Your task to perform on an android device: Search for a new perfume Image 0: 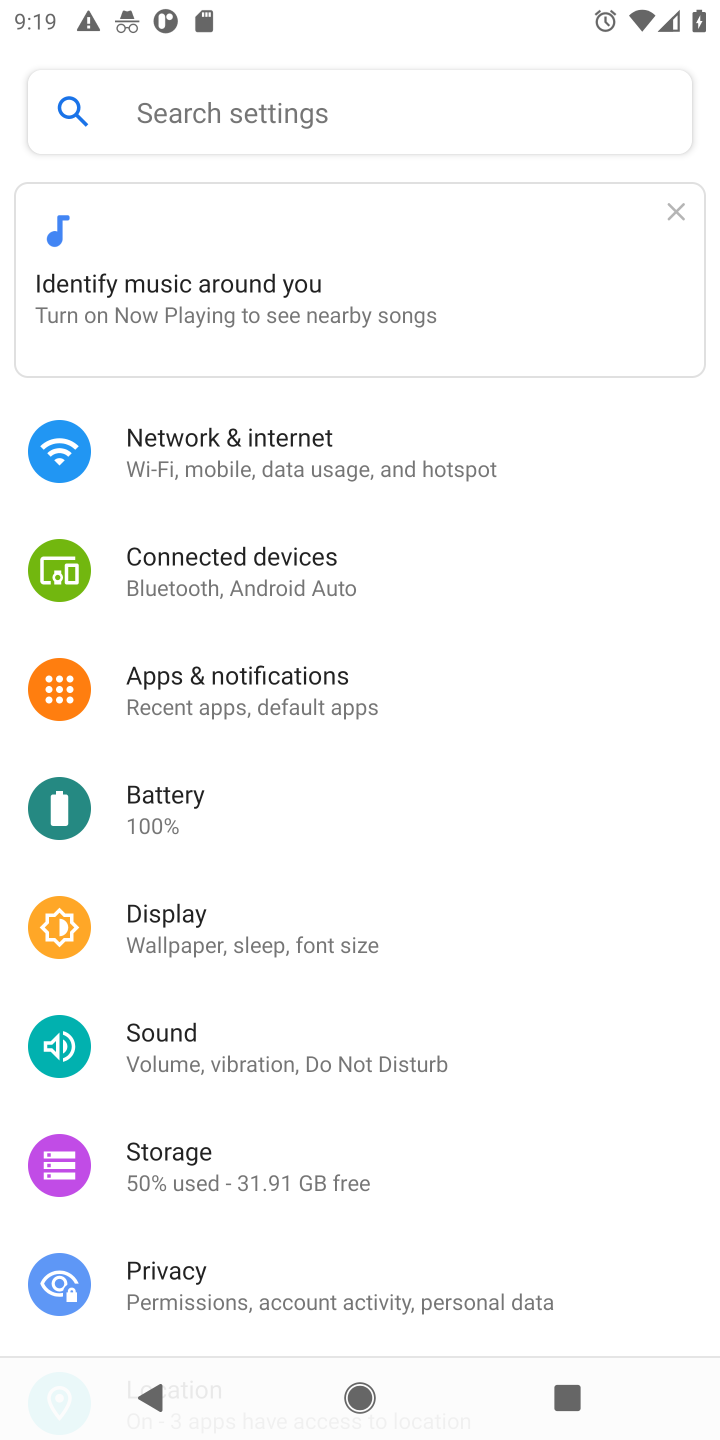
Step 0: press home button
Your task to perform on an android device: Search for a new perfume Image 1: 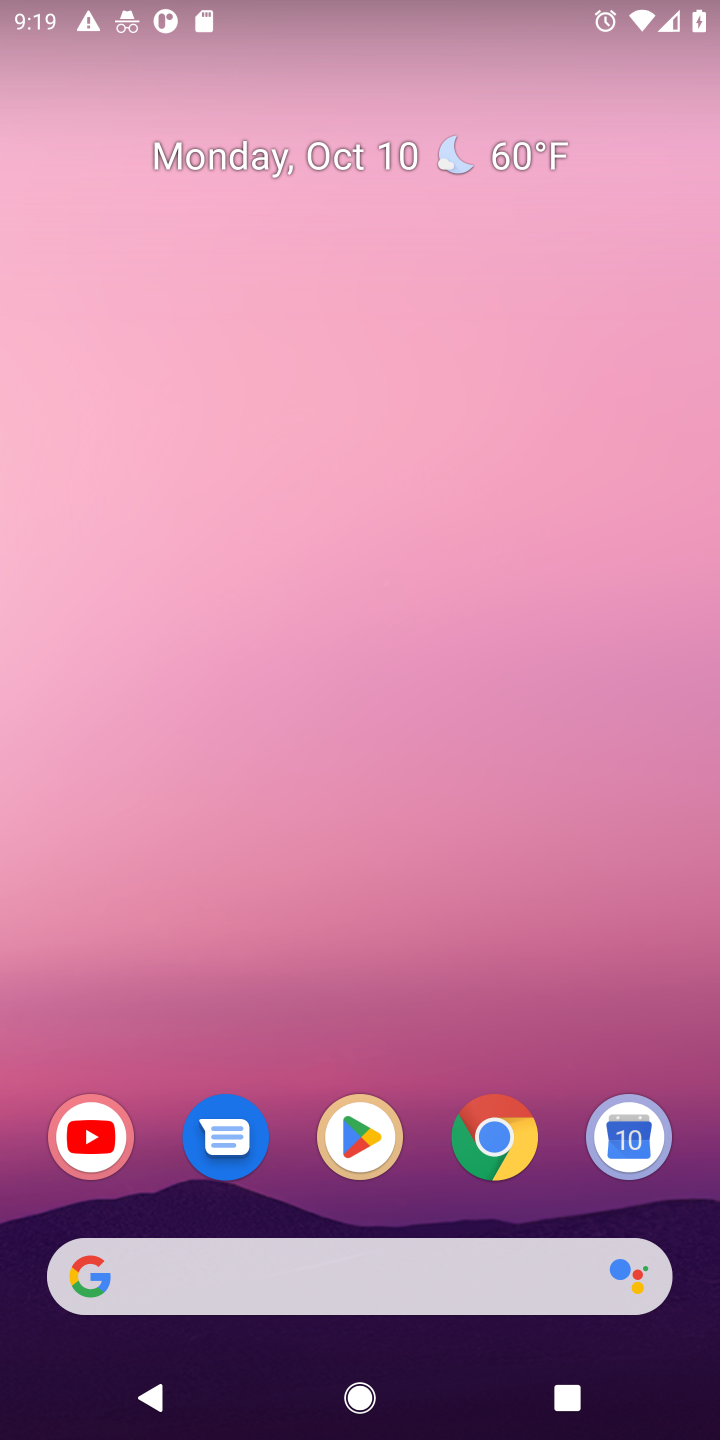
Step 1: click (487, 1130)
Your task to perform on an android device: Search for a new perfume Image 2: 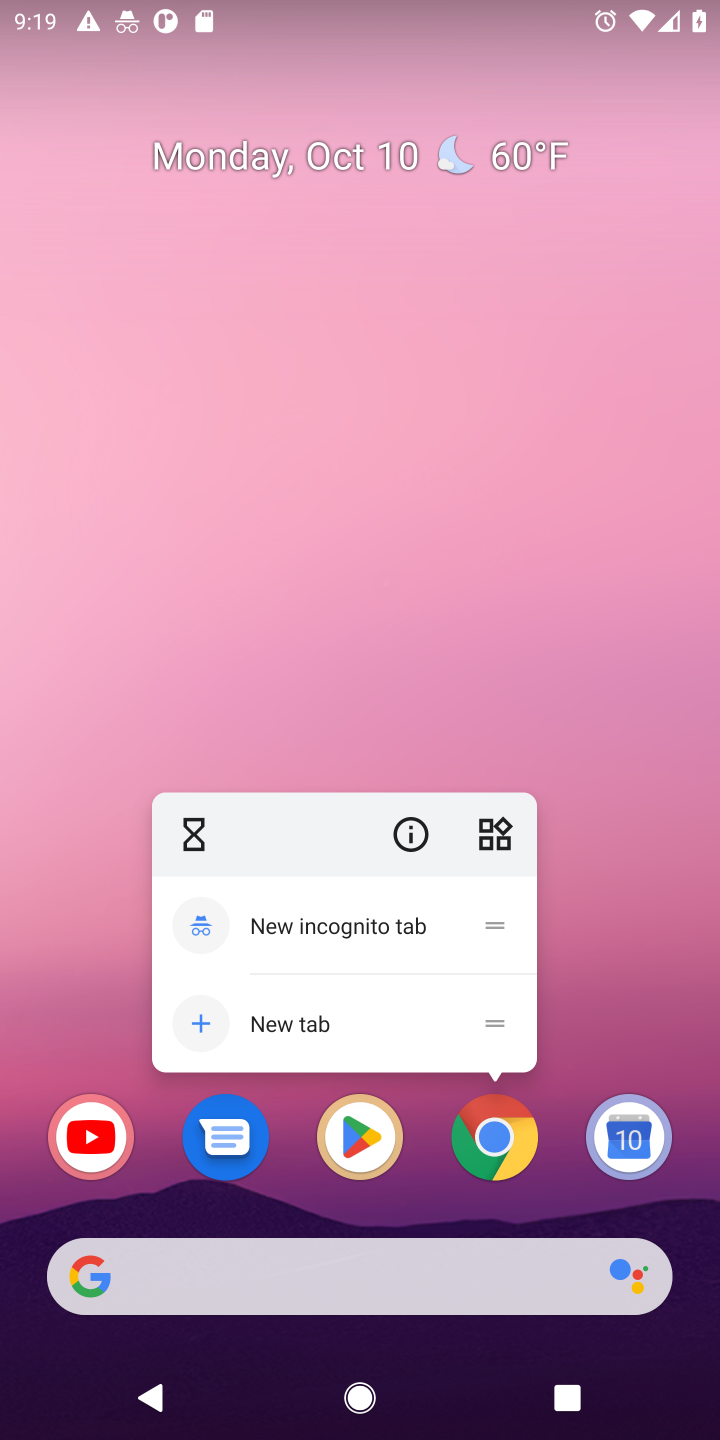
Step 2: click (546, 1185)
Your task to perform on an android device: Search for a new perfume Image 3: 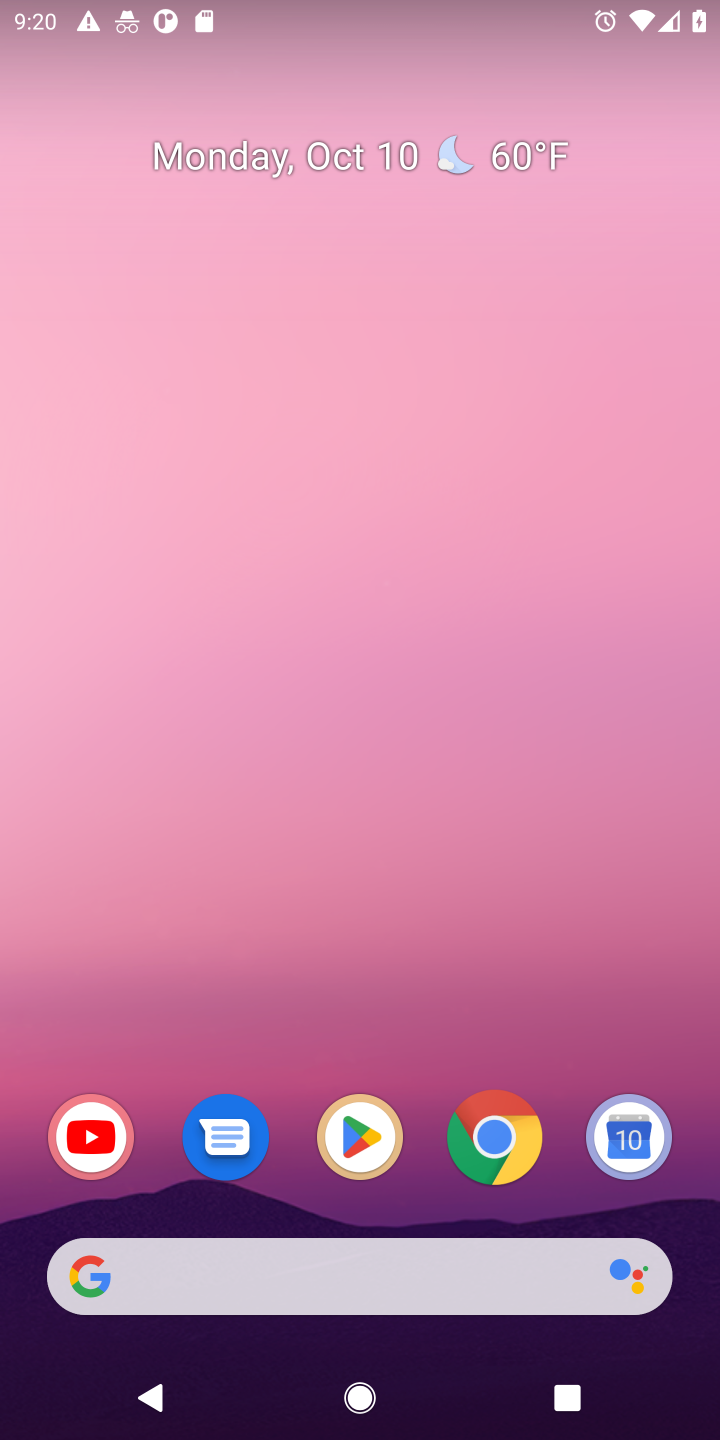
Step 3: click (498, 1144)
Your task to perform on an android device: Search for a new perfume Image 4: 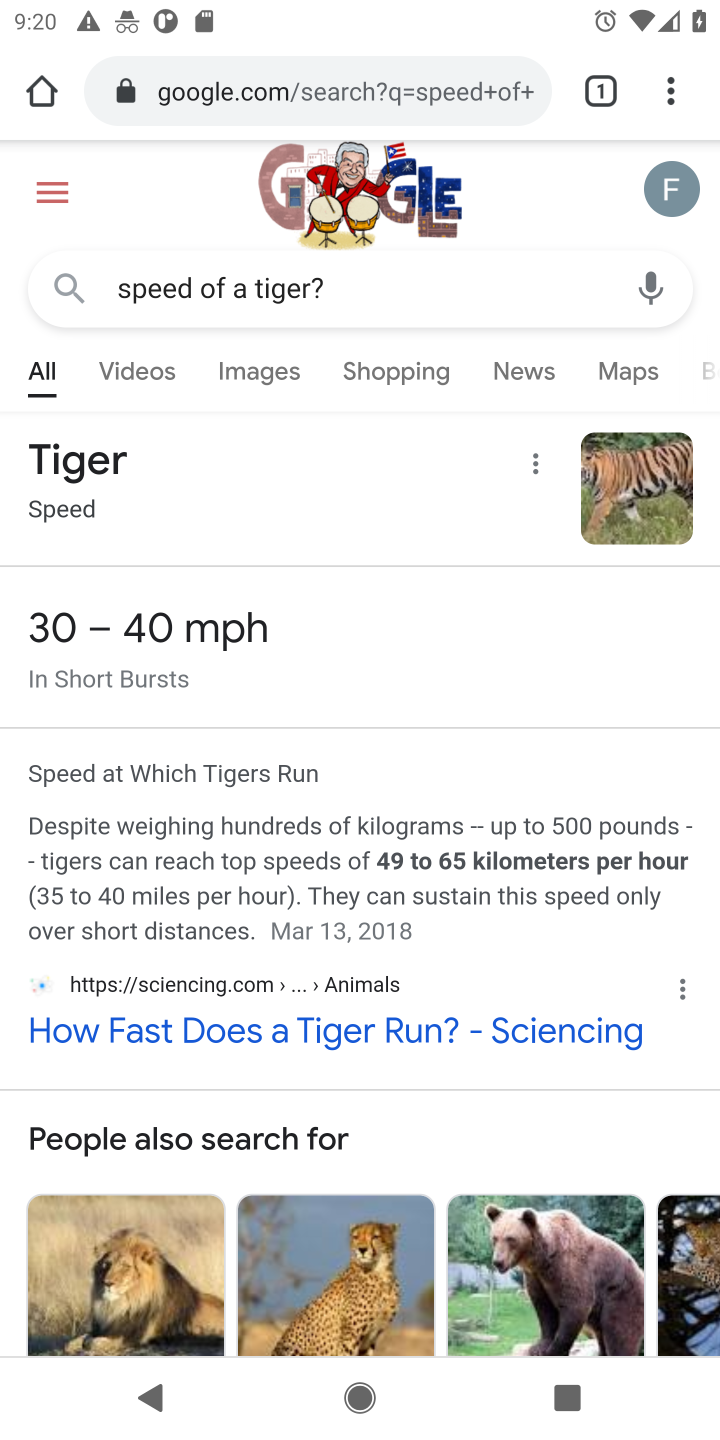
Step 4: click (313, 68)
Your task to perform on an android device: Search for a new perfume Image 5: 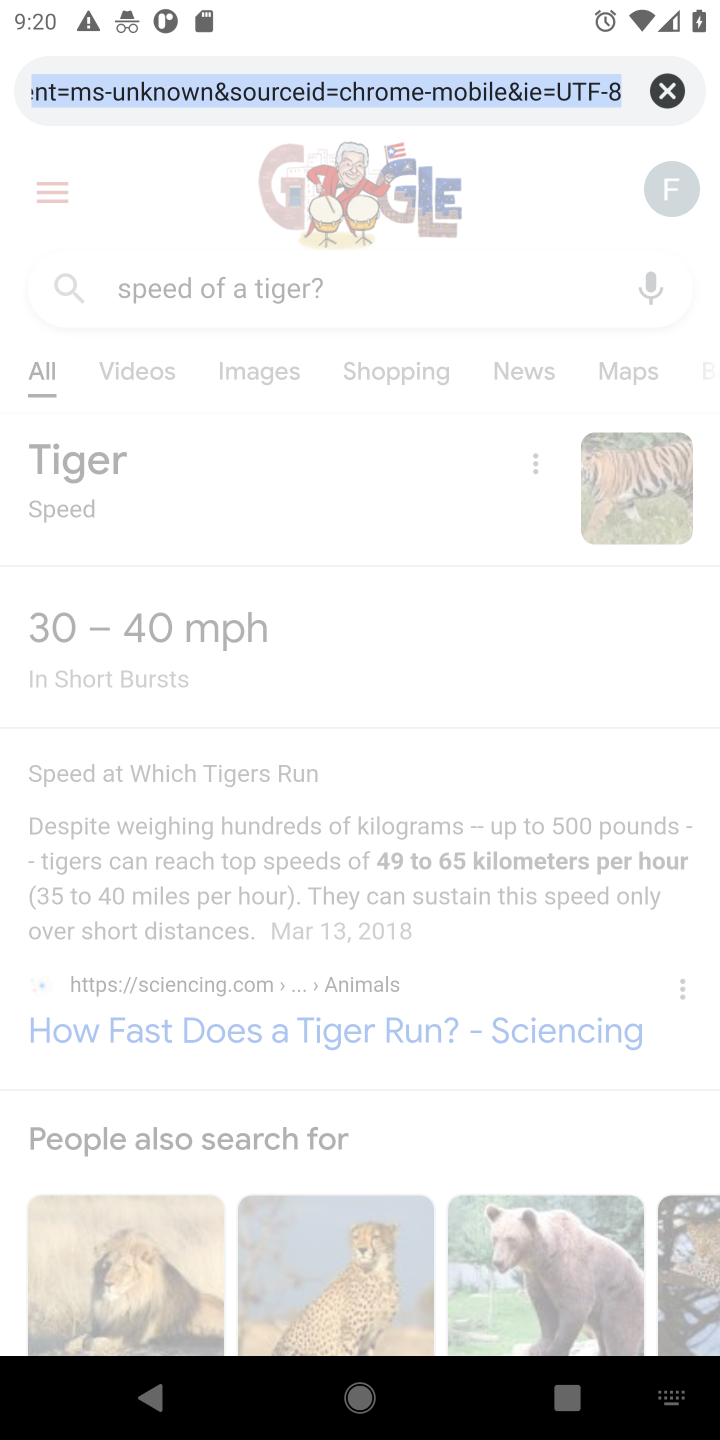
Step 5: click (663, 87)
Your task to perform on an android device: Search for a new perfume Image 6: 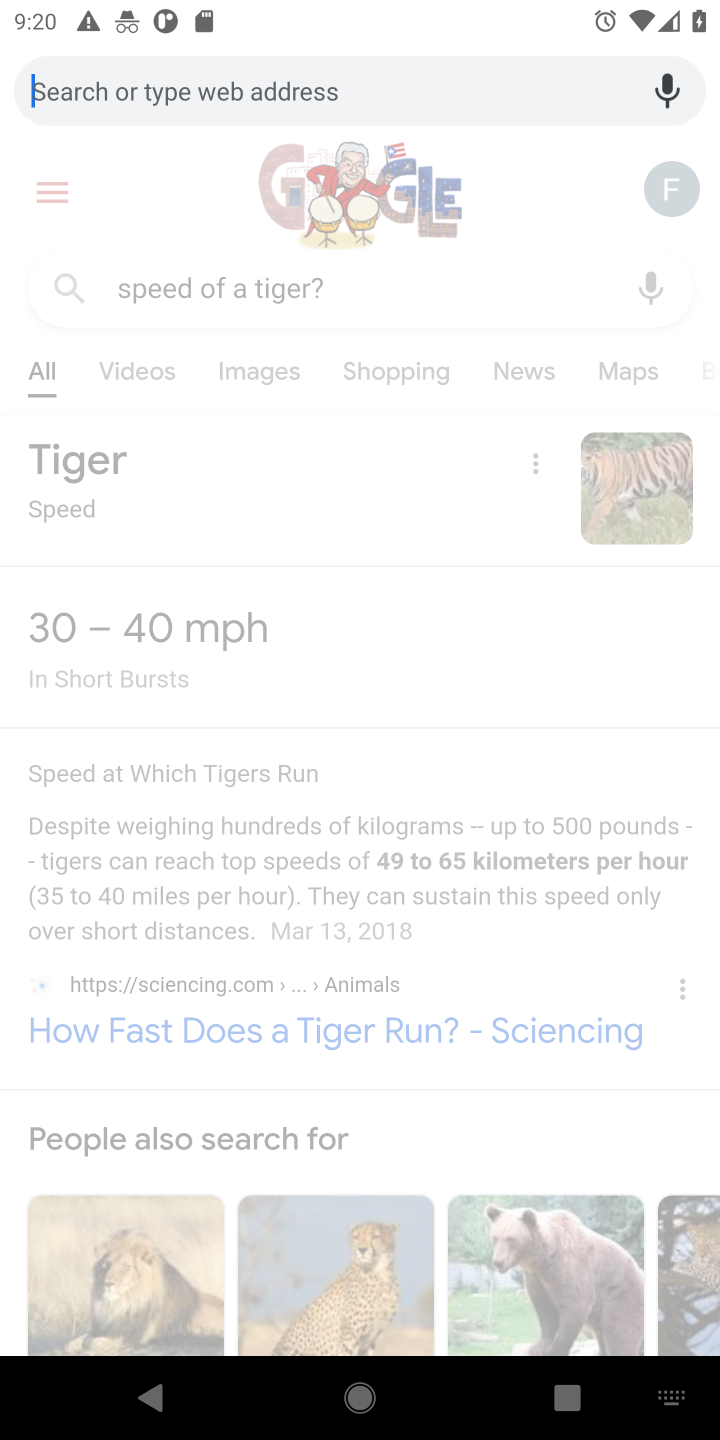
Step 6: type "new perfume"
Your task to perform on an android device: Search for a new perfume Image 7: 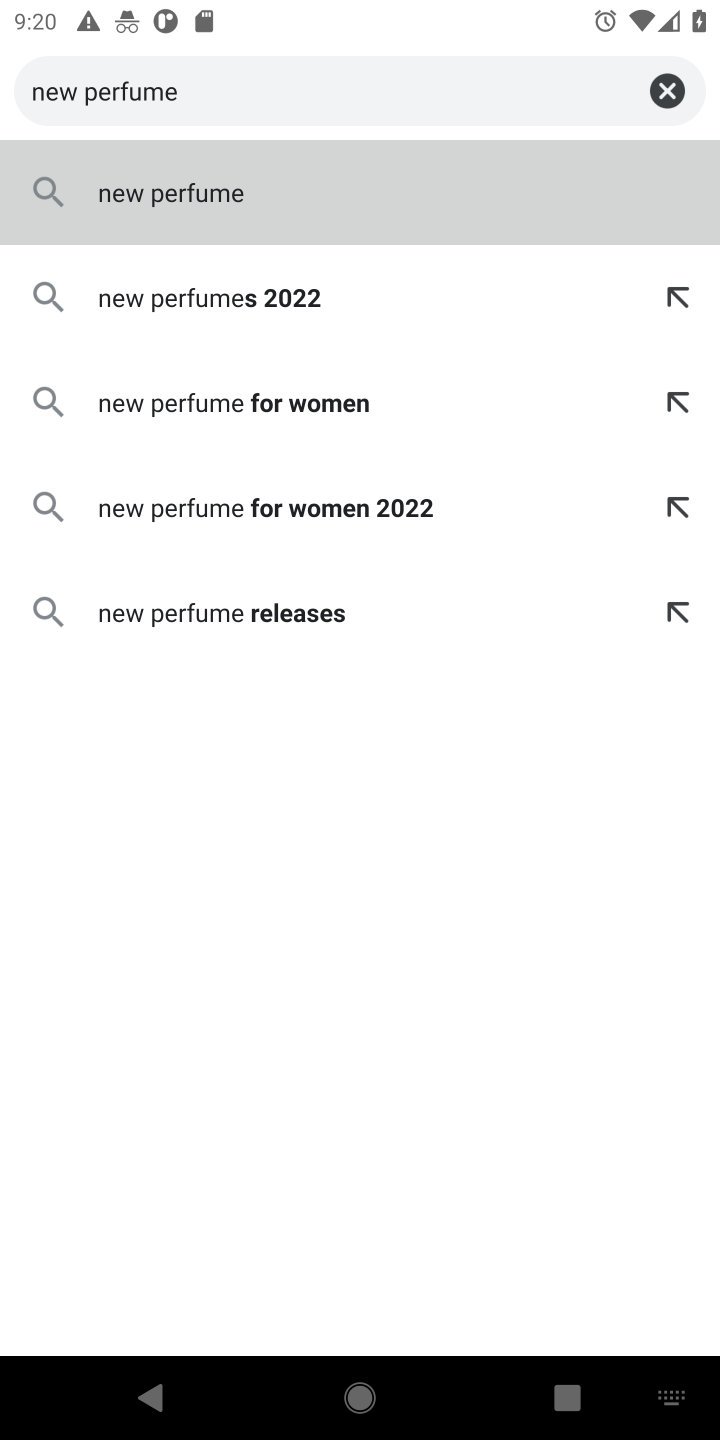
Step 7: click (135, 206)
Your task to perform on an android device: Search for a new perfume Image 8: 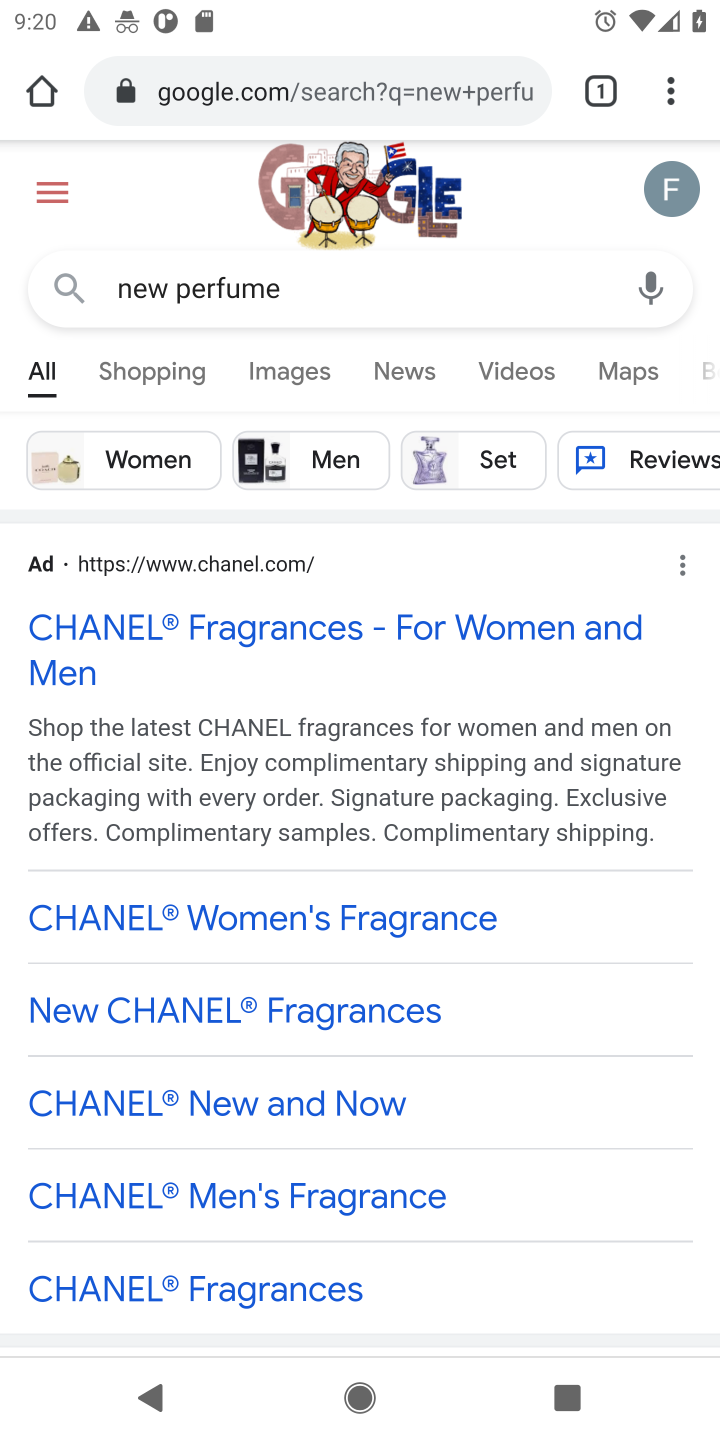
Step 8: click (221, 631)
Your task to perform on an android device: Search for a new perfume Image 9: 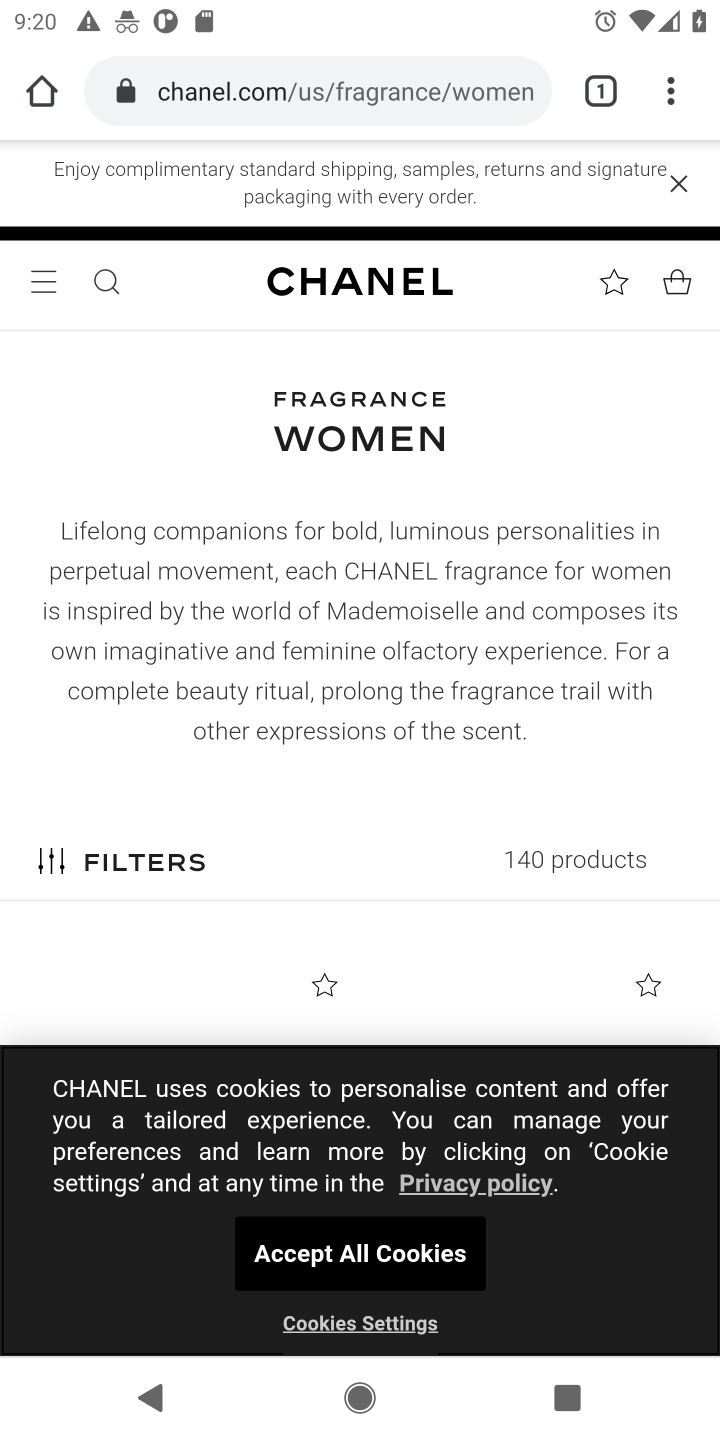
Step 9: drag from (375, 1324) to (317, 594)
Your task to perform on an android device: Search for a new perfume Image 10: 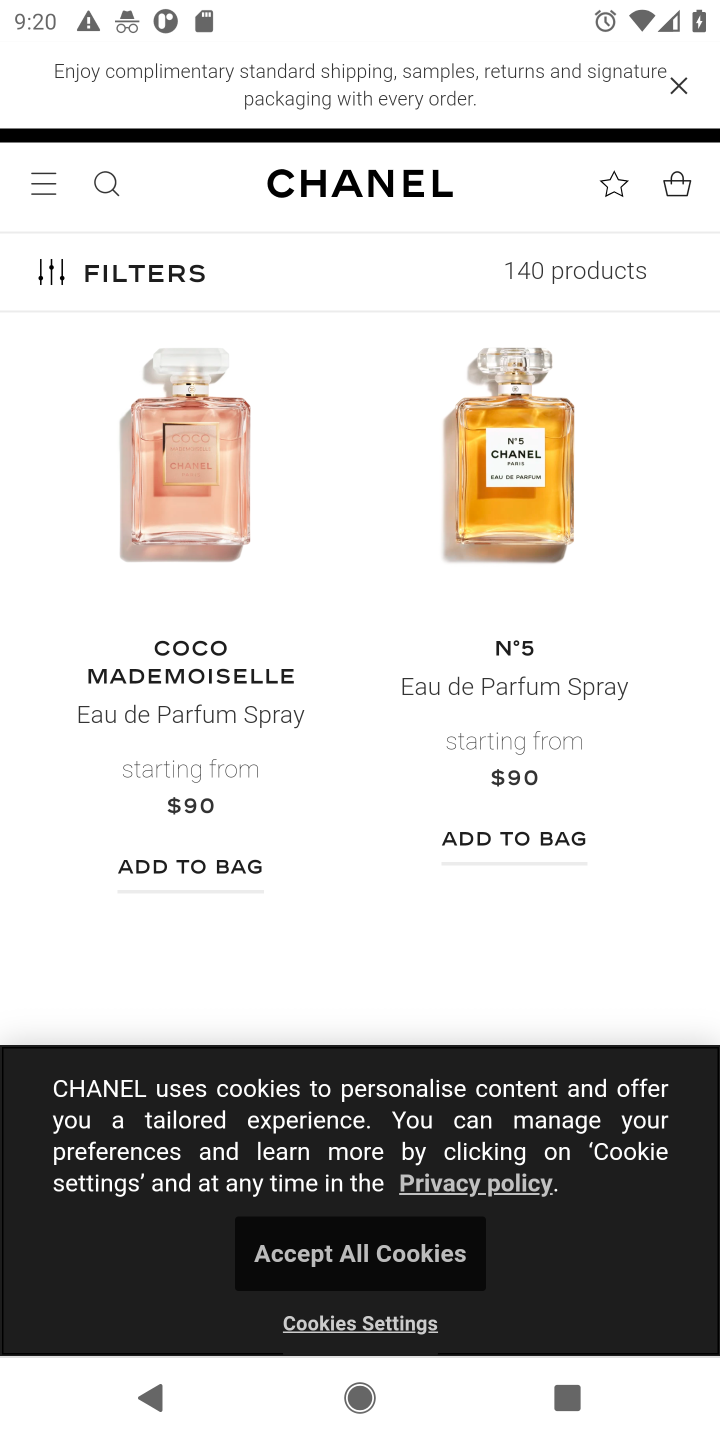
Step 10: click (333, 1251)
Your task to perform on an android device: Search for a new perfume Image 11: 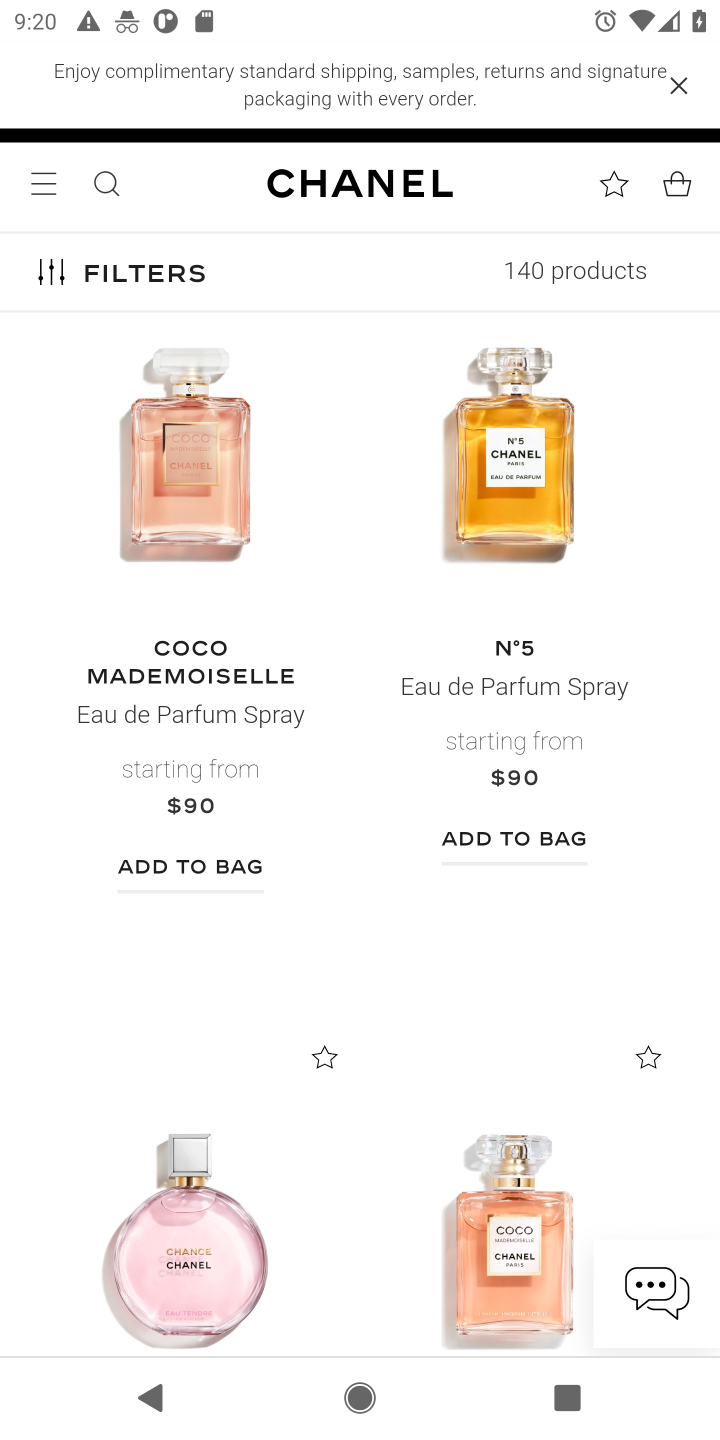
Step 11: task complete